Your task to perform on an android device: What is the news today? Image 0: 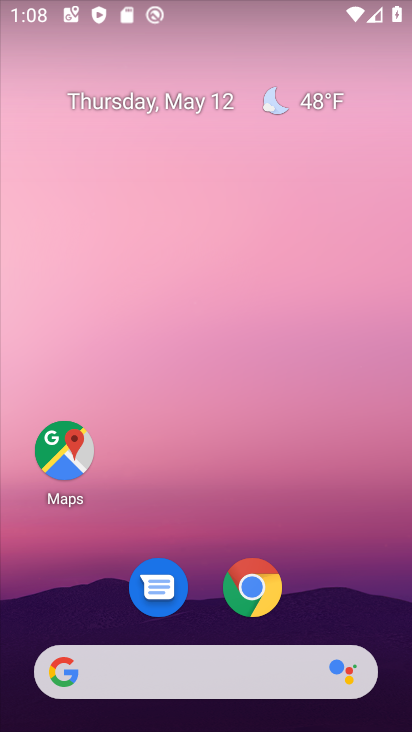
Step 0: drag from (209, 662) to (212, 211)
Your task to perform on an android device: What is the news today? Image 1: 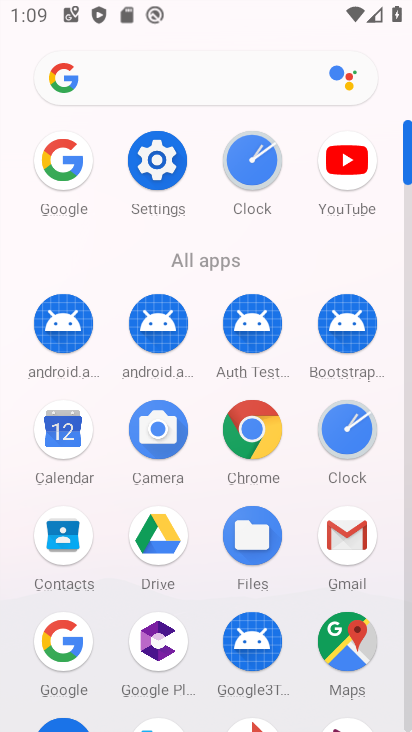
Step 1: drag from (162, 455) to (168, 324)
Your task to perform on an android device: What is the news today? Image 2: 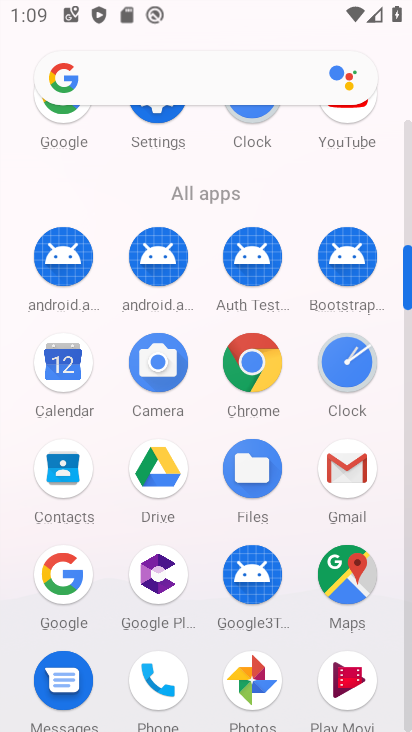
Step 2: click (73, 582)
Your task to perform on an android device: What is the news today? Image 3: 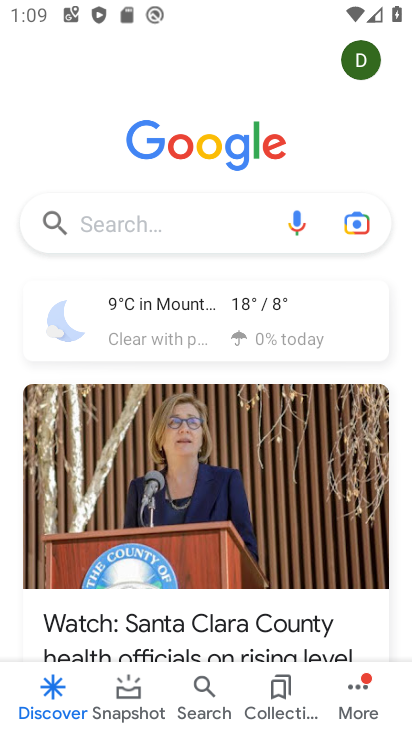
Step 3: click (173, 225)
Your task to perform on an android device: What is the news today? Image 4: 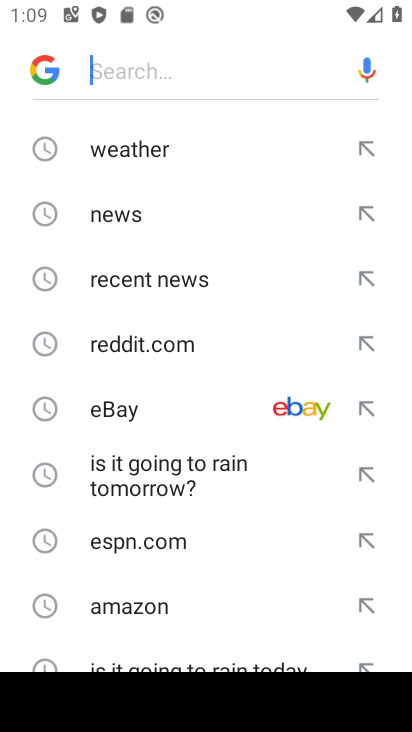
Step 4: click (270, 217)
Your task to perform on an android device: What is the news today? Image 5: 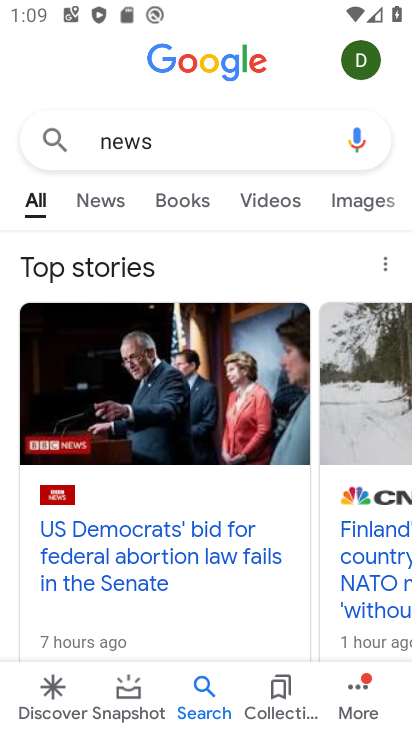
Step 5: click (112, 211)
Your task to perform on an android device: What is the news today? Image 6: 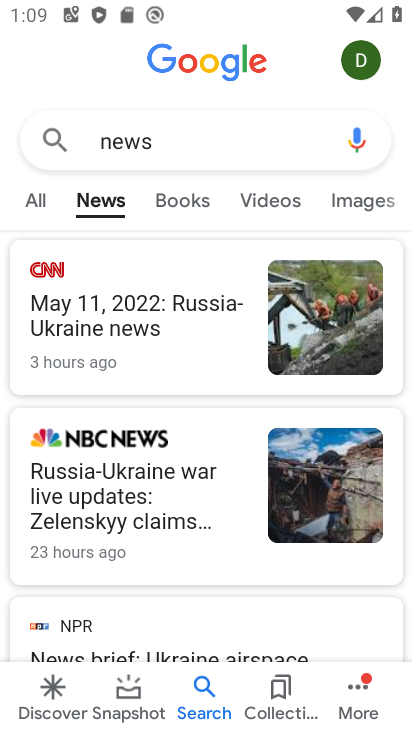
Step 6: task complete